Your task to perform on an android device: see tabs open on other devices in the chrome app Image 0: 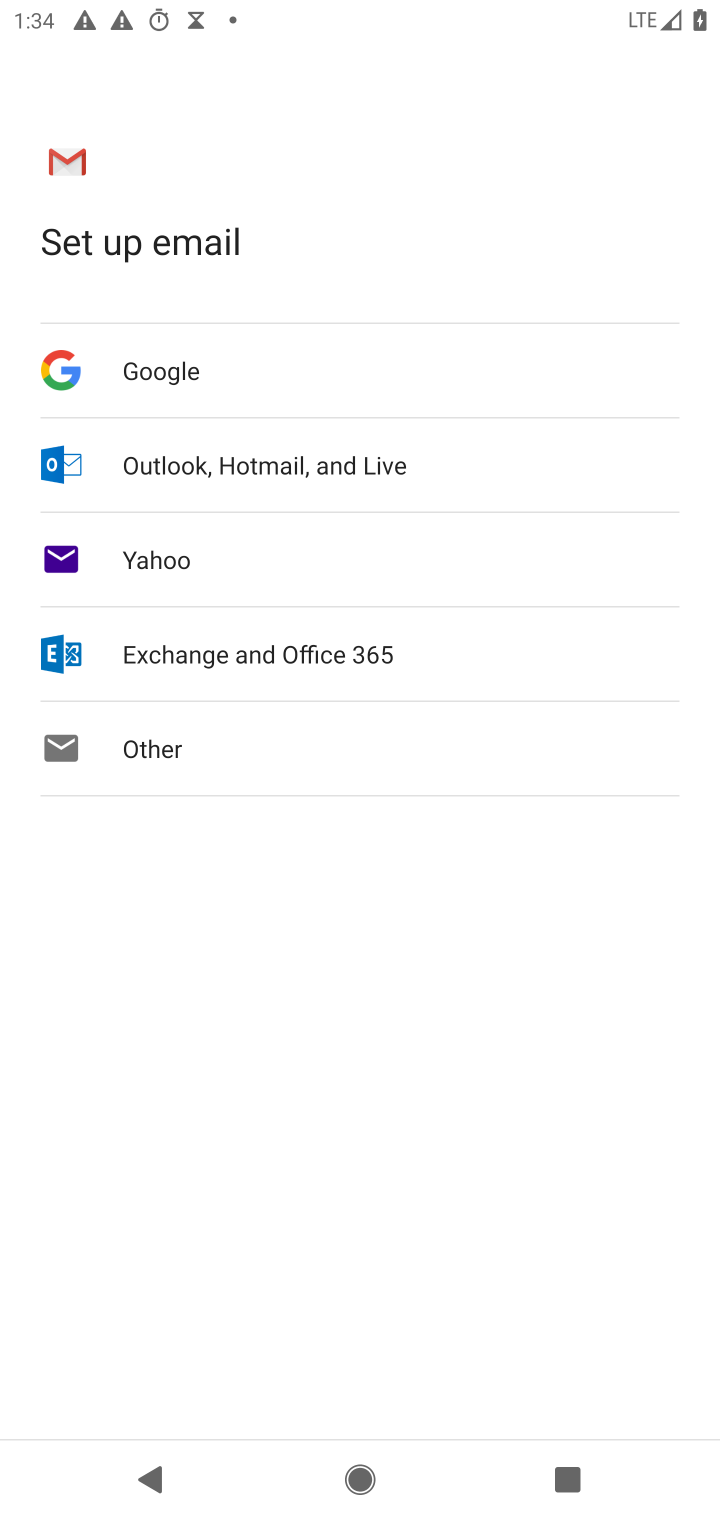
Step 0: press home button
Your task to perform on an android device: see tabs open on other devices in the chrome app Image 1: 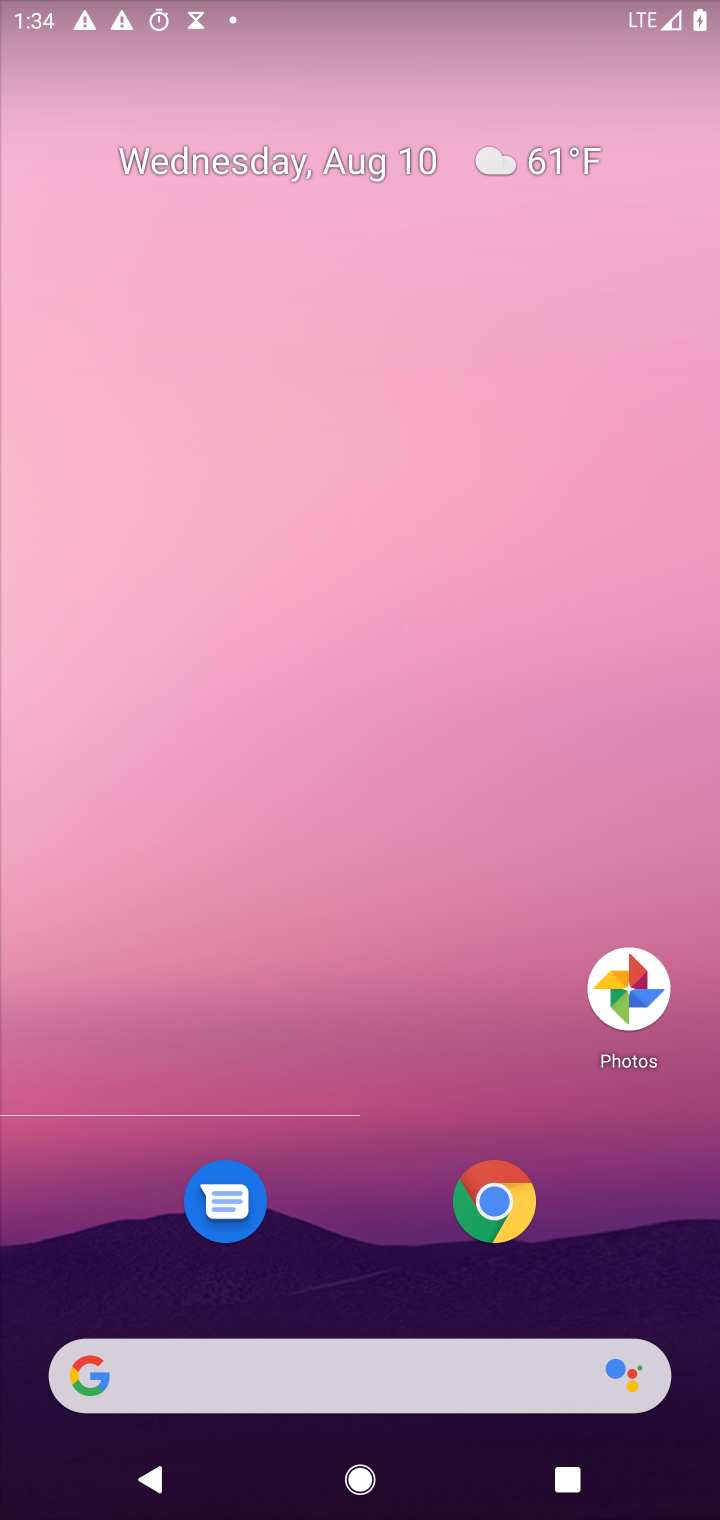
Step 1: drag from (380, 1141) to (411, 191)
Your task to perform on an android device: see tabs open on other devices in the chrome app Image 2: 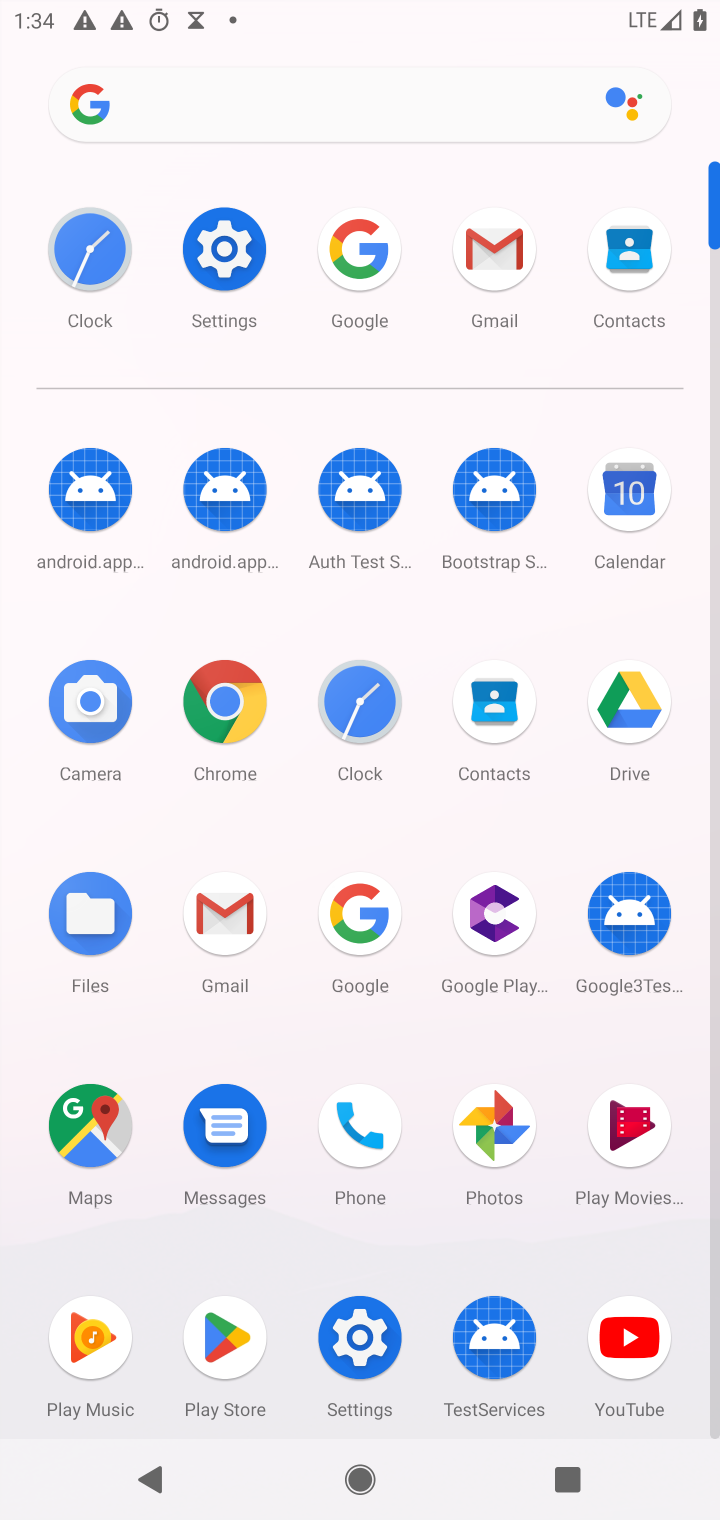
Step 2: click (224, 700)
Your task to perform on an android device: see tabs open on other devices in the chrome app Image 3: 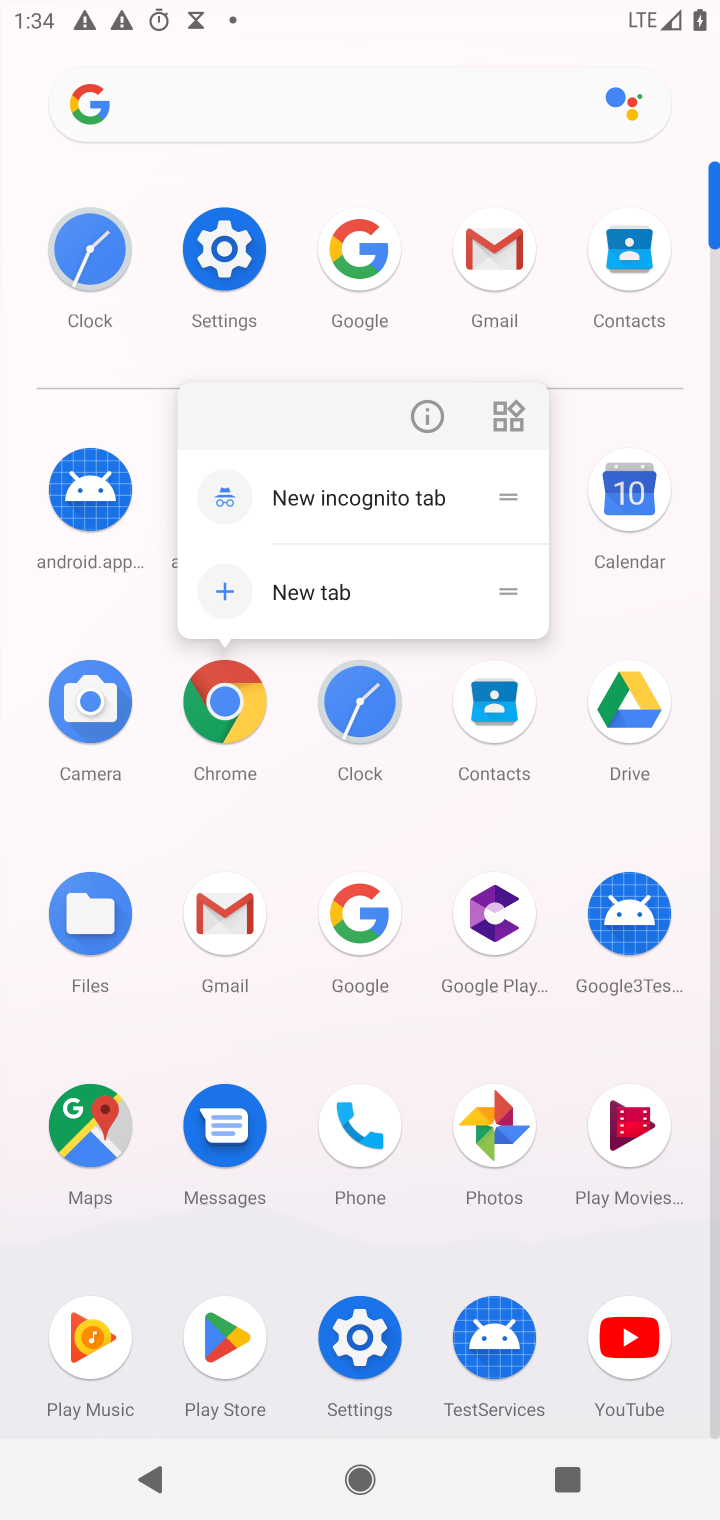
Step 3: click (229, 704)
Your task to perform on an android device: see tabs open on other devices in the chrome app Image 4: 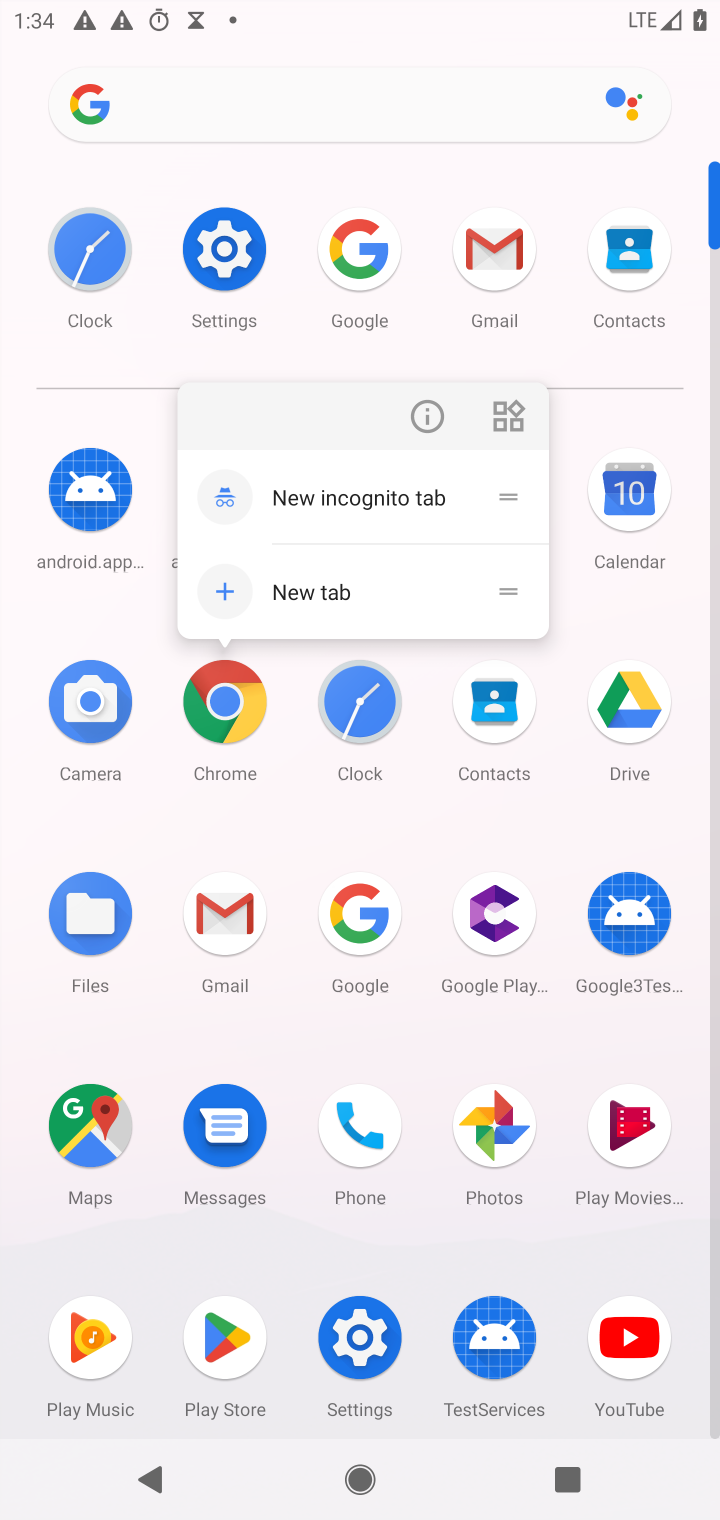
Step 4: click (235, 703)
Your task to perform on an android device: see tabs open on other devices in the chrome app Image 5: 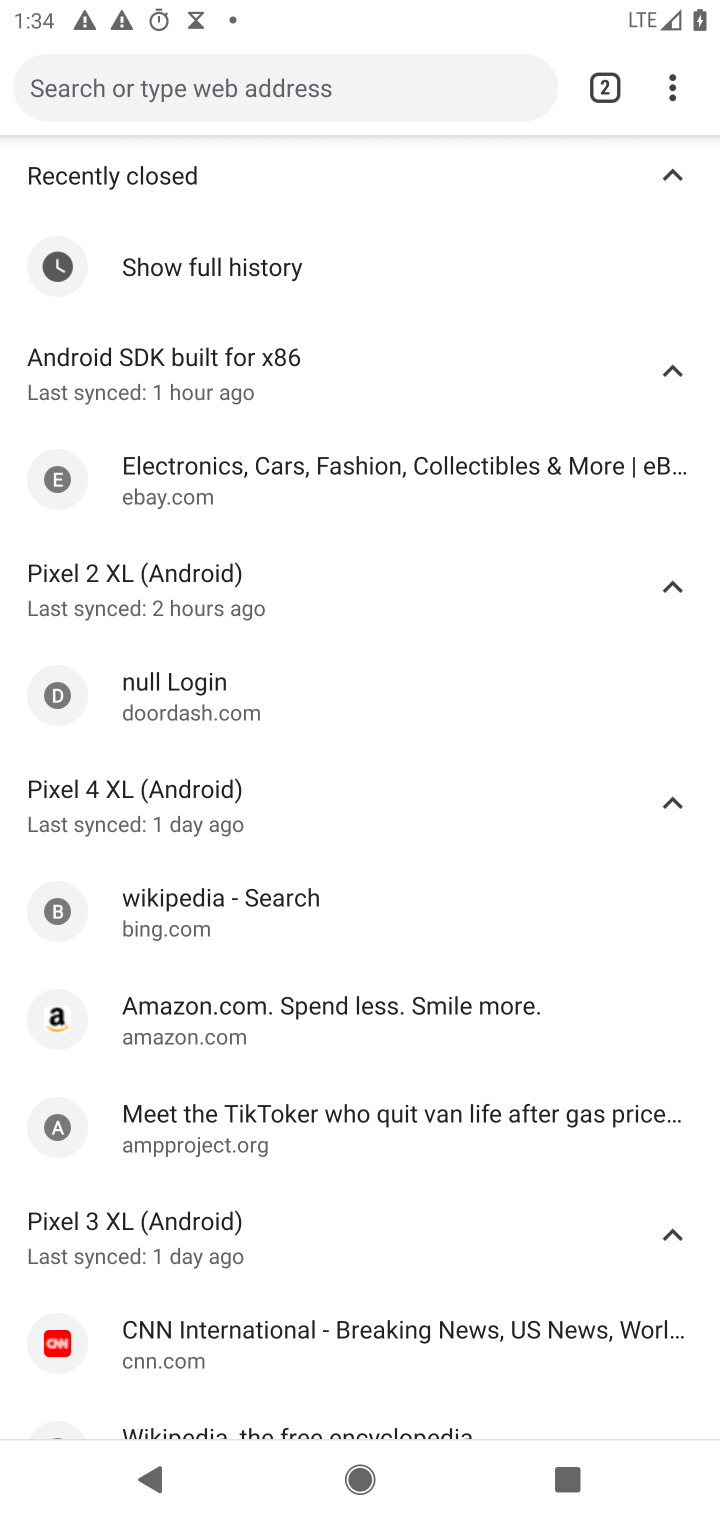
Step 5: task complete